Your task to perform on an android device: Go to CNN.com Image 0: 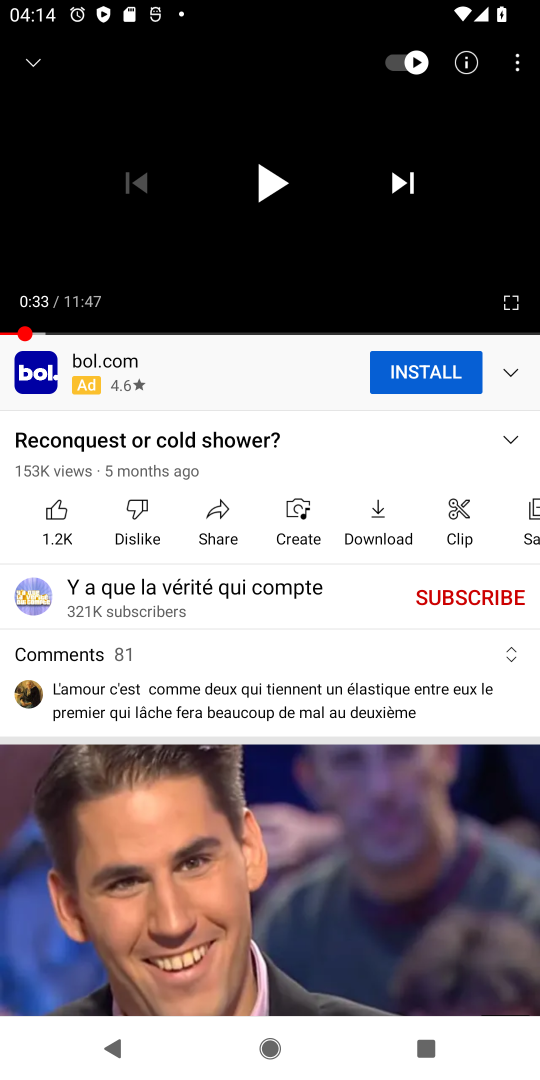
Step 0: press home button
Your task to perform on an android device: Go to CNN.com Image 1: 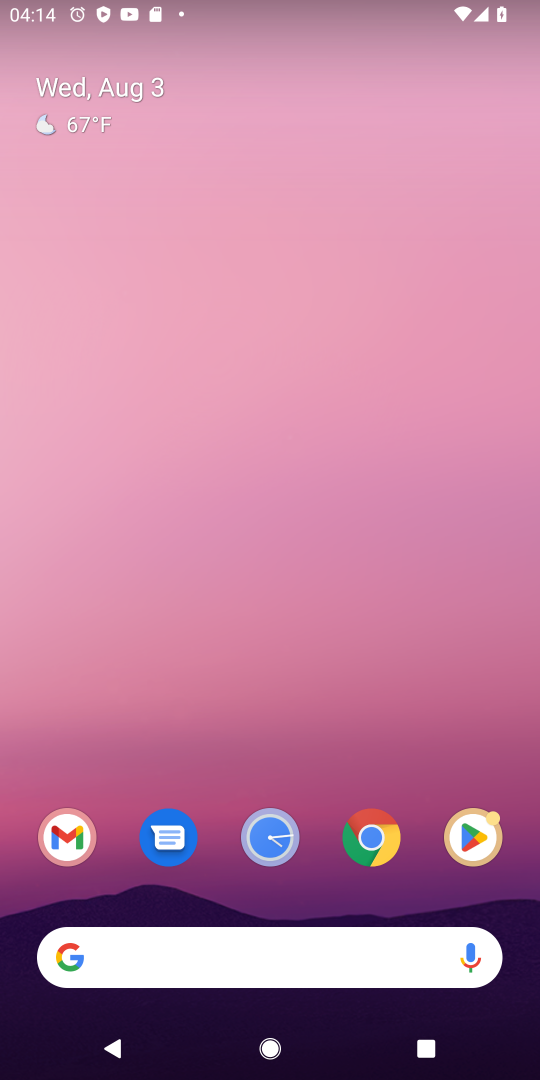
Step 1: click (375, 836)
Your task to perform on an android device: Go to CNN.com Image 2: 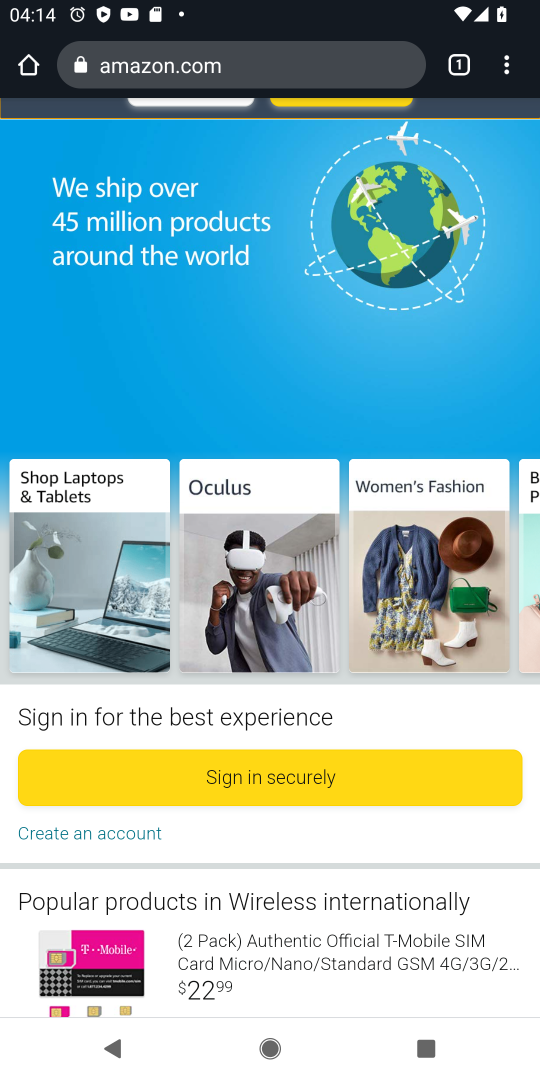
Step 2: click (285, 55)
Your task to perform on an android device: Go to CNN.com Image 3: 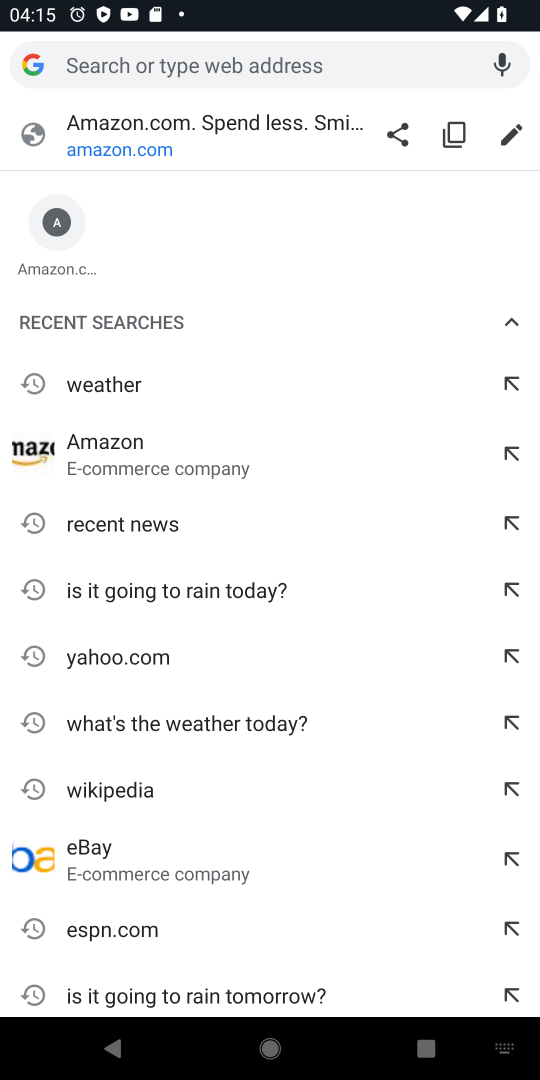
Step 3: type "cnn.com"
Your task to perform on an android device: Go to CNN.com Image 4: 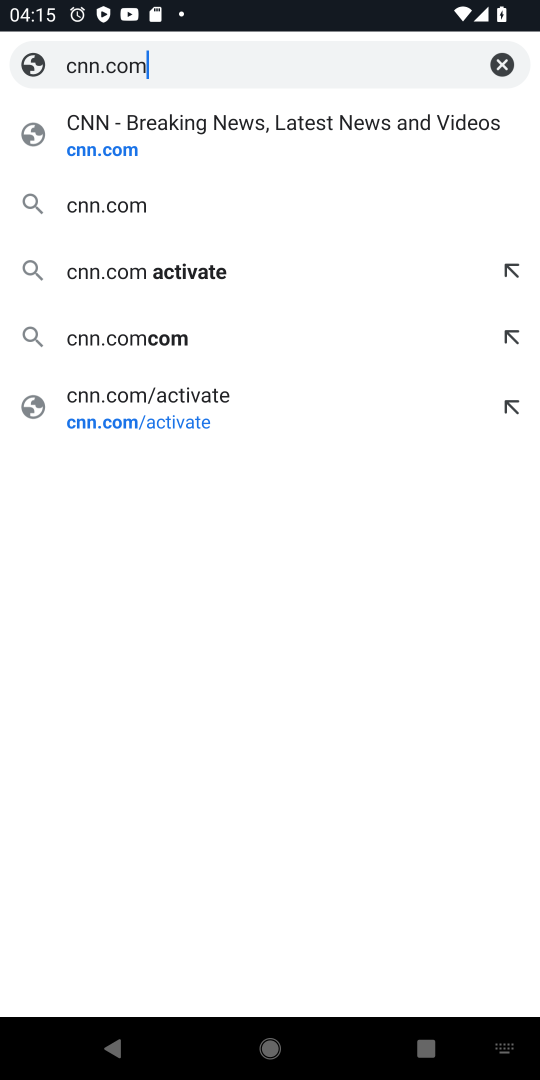
Step 4: click (104, 124)
Your task to perform on an android device: Go to CNN.com Image 5: 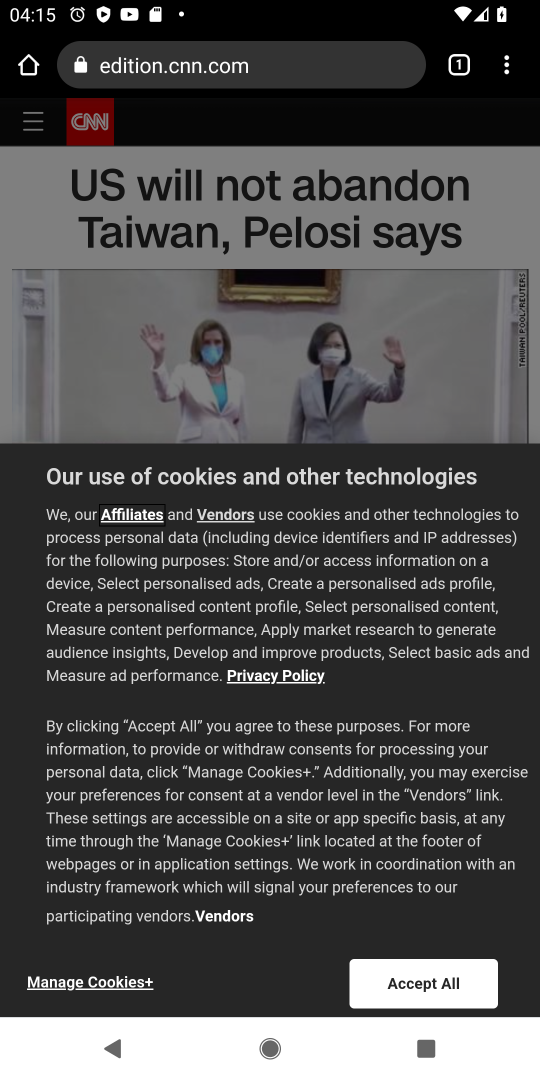
Step 5: drag from (341, 605) to (360, 389)
Your task to perform on an android device: Go to CNN.com Image 6: 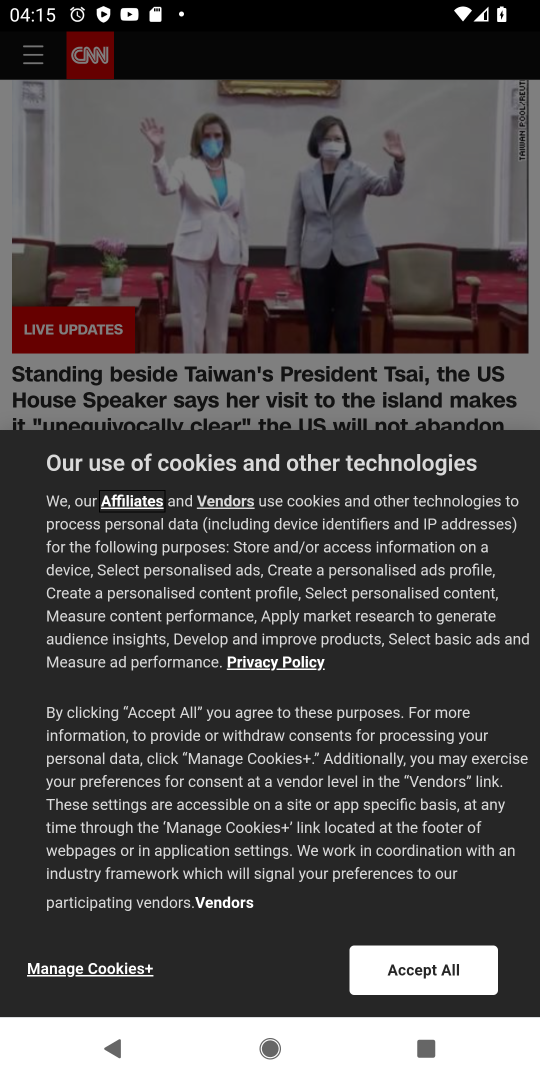
Step 6: click (428, 963)
Your task to perform on an android device: Go to CNN.com Image 7: 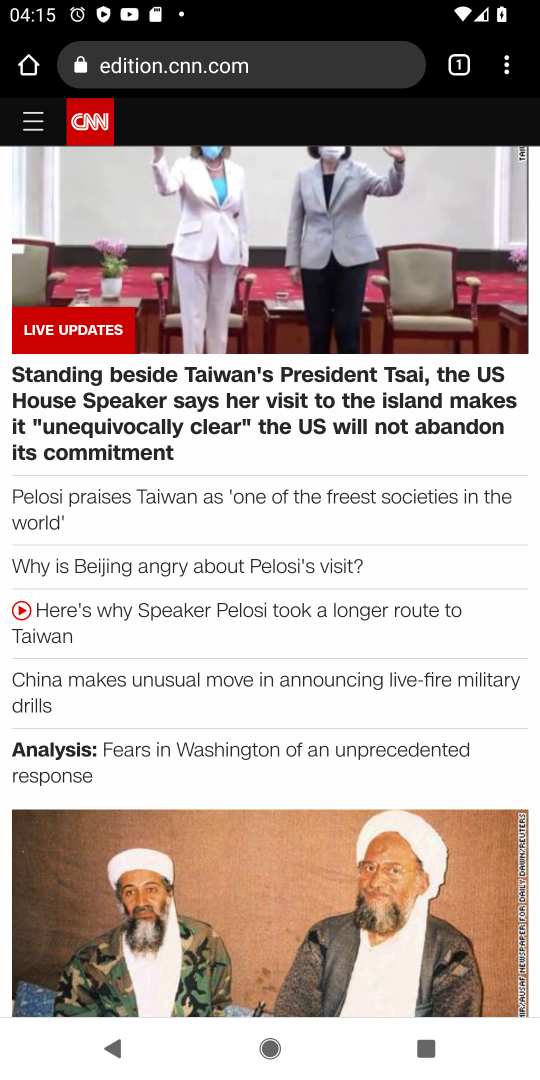
Step 7: task complete